Your task to perform on an android device: allow cookies in the chrome app Image 0: 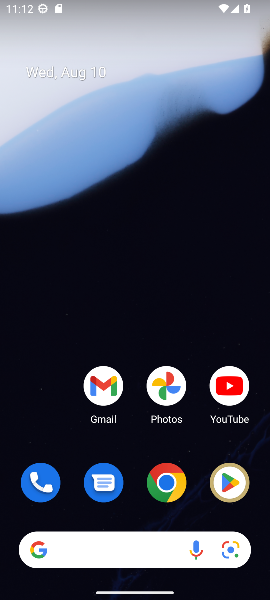
Step 0: click (171, 470)
Your task to perform on an android device: allow cookies in the chrome app Image 1: 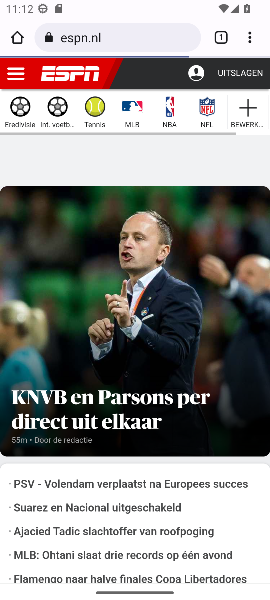
Step 1: click (249, 41)
Your task to perform on an android device: allow cookies in the chrome app Image 2: 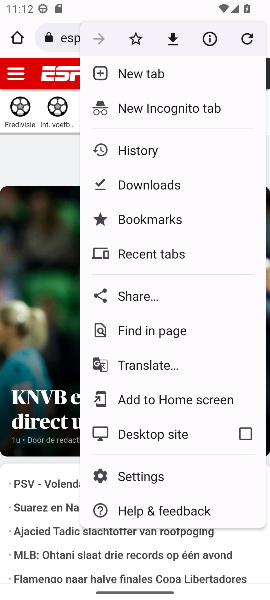
Step 2: click (142, 146)
Your task to perform on an android device: allow cookies in the chrome app Image 3: 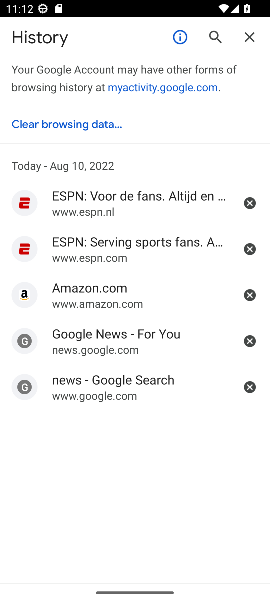
Step 3: click (84, 126)
Your task to perform on an android device: allow cookies in the chrome app Image 4: 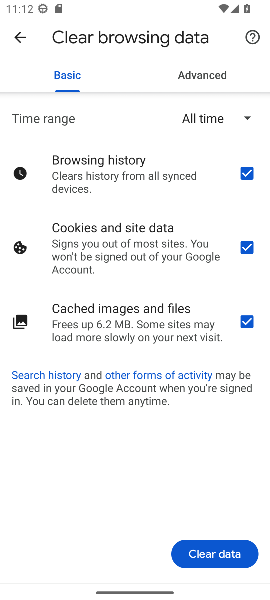
Step 4: click (249, 175)
Your task to perform on an android device: allow cookies in the chrome app Image 5: 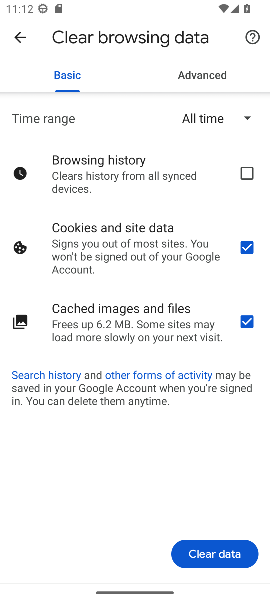
Step 5: click (243, 317)
Your task to perform on an android device: allow cookies in the chrome app Image 6: 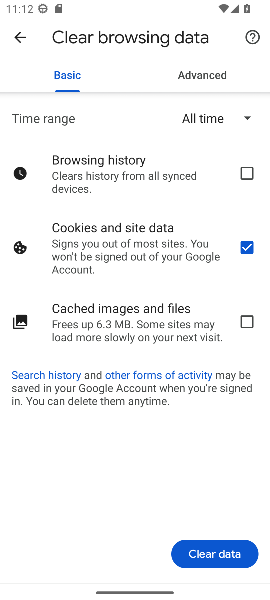
Step 6: click (214, 553)
Your task to perform on an android device: allow cookies in the chrome app Image 7: 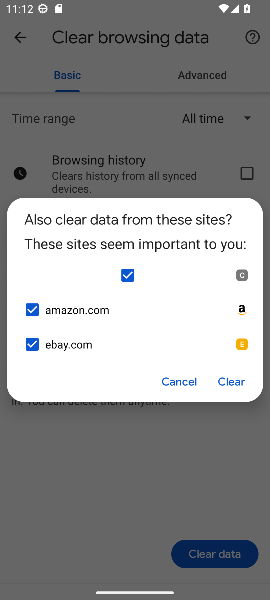
Step 7: click (238, 380)
Your task to perform on an android device: allow cookies in the chrome app Image 8: 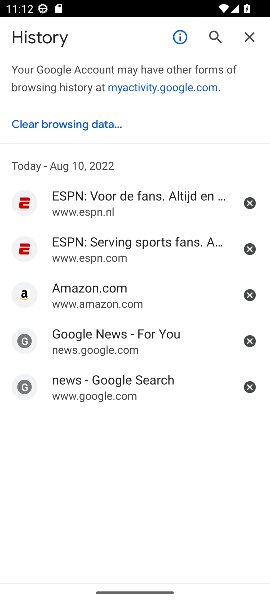
Step 8: task complete